Your task to perform on an android device: Open Google Image 0: 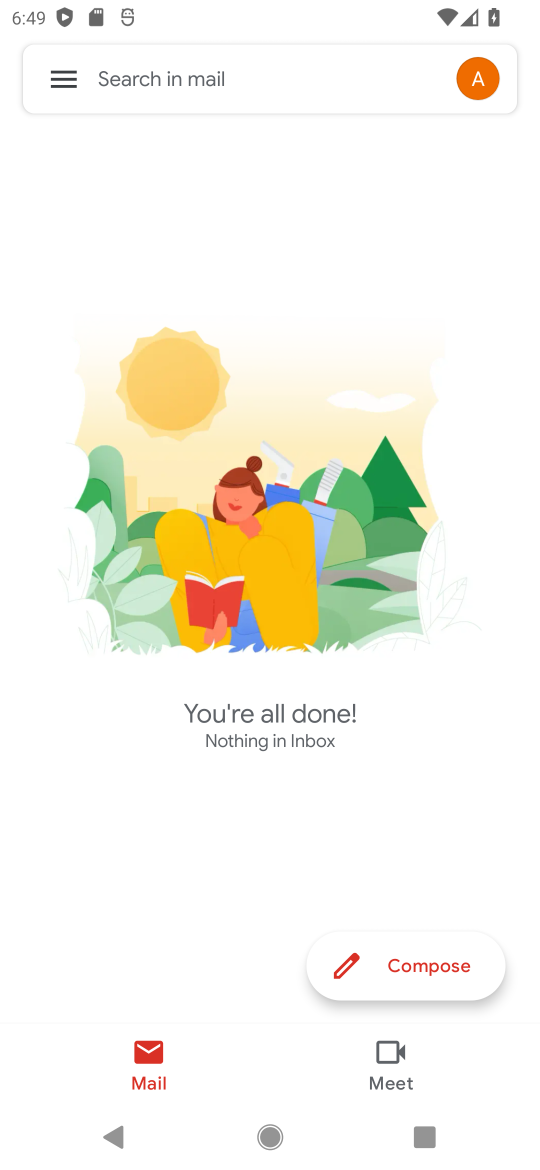
Step 0: press home button
Your task to perform on an android device: Open Google Image 1: 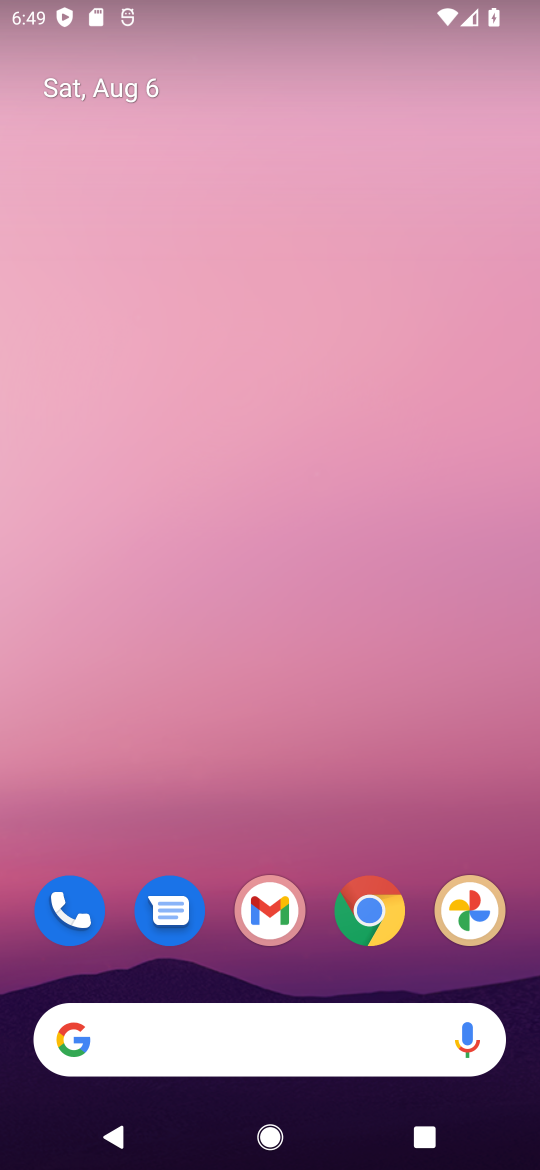
Step 1: drag from (514, 1135) to (367, 121)
Your task to perform on an android device: Open Google Image 2: 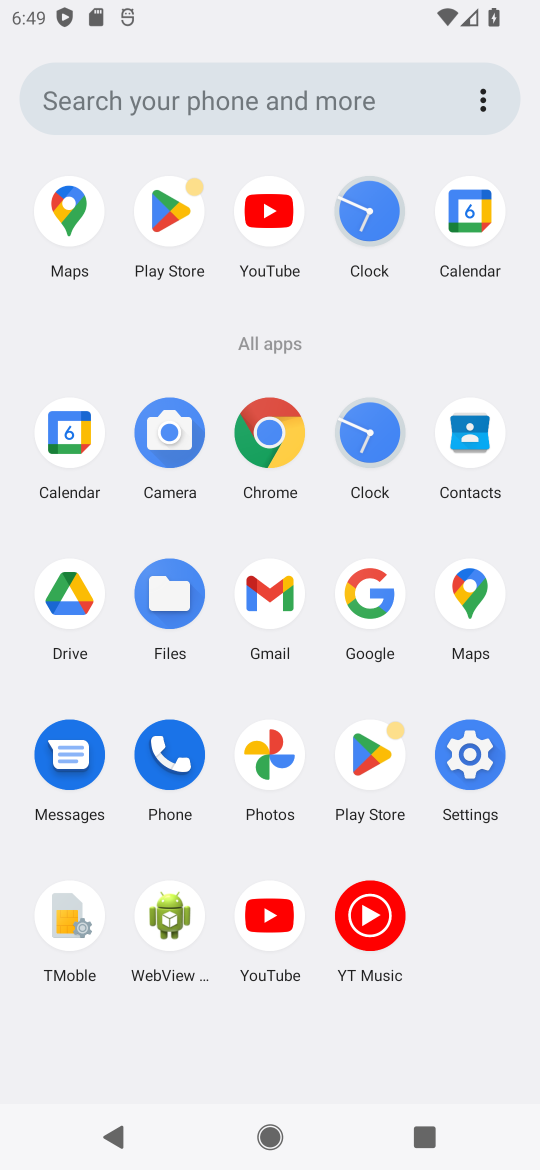
Step 2: click (370, 602)
Your task to perform on an android device: Open Google Image 3: 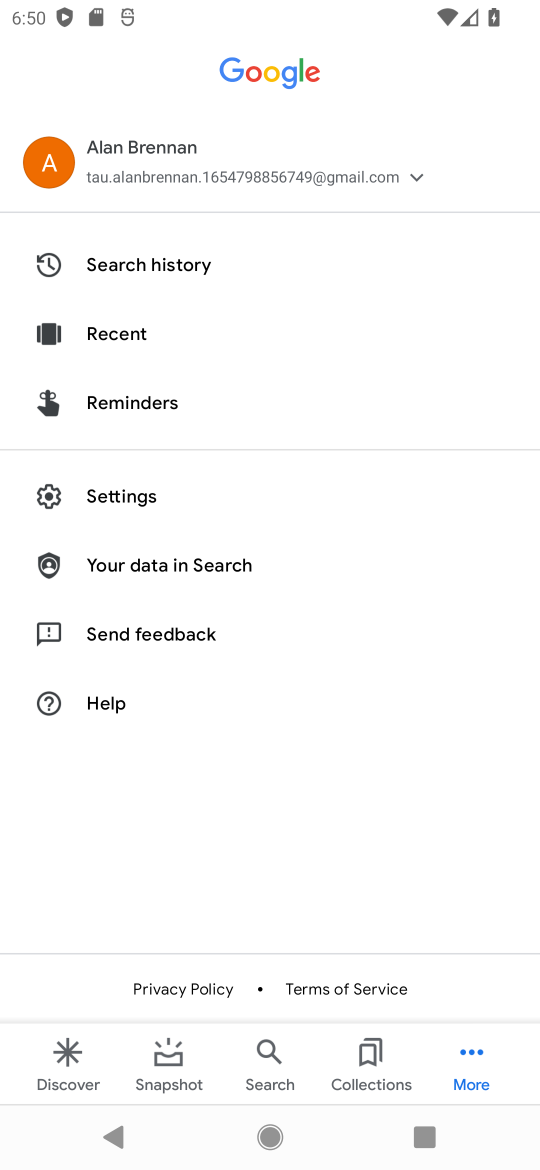
Step 3: click (459, 1072)
Your task to perform on an android device: Open Google Image 4: 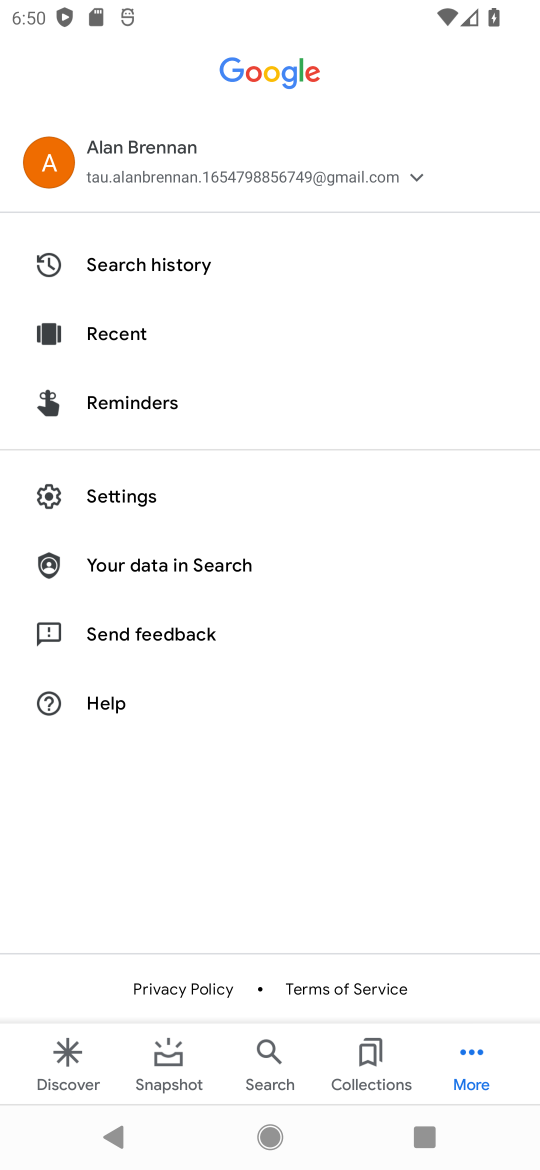
Step 4: task complete